Your task to perform on an android device: Check the weather Image 0: 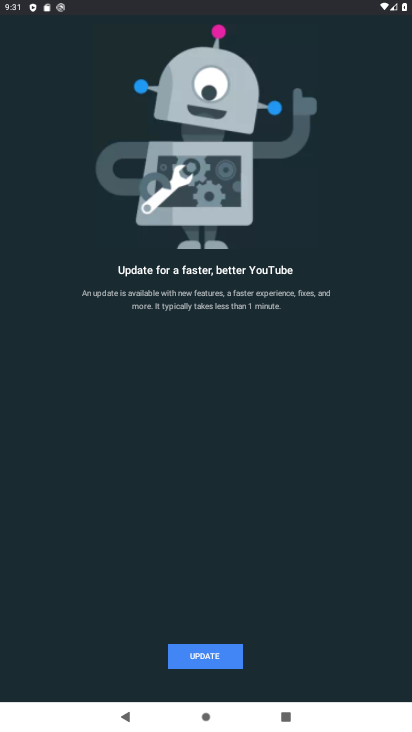
Step 0: press home button
Your task to perform on an android device: Check the weather Image 1: 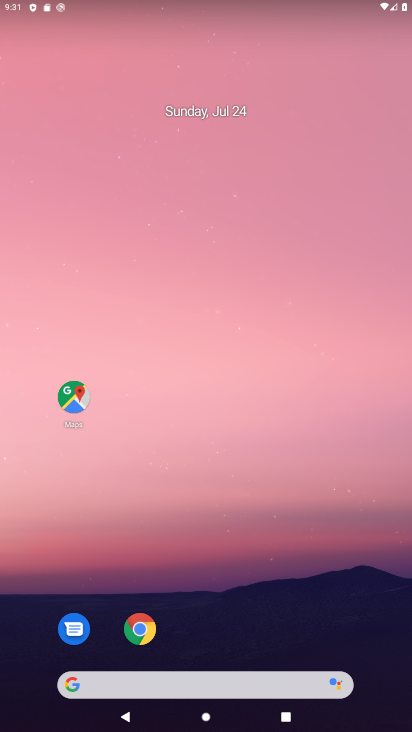
Step 1: drag from (201, 686) to (215, 190)
Your task to perform on an android device: Check the weather Image 2: 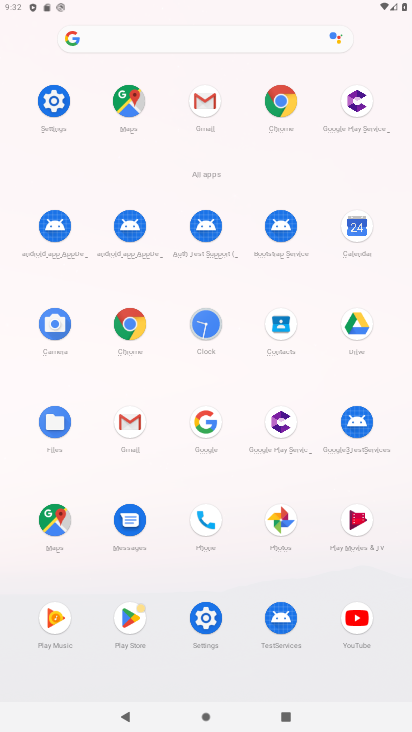
Step 2: click (282, 100)
Your task to perform on an android device: Check the weather Image 3: 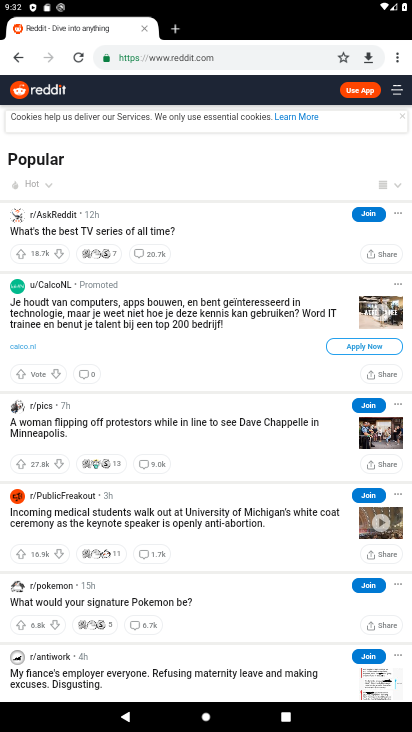
Step 3: click (281, 58)
Your task to perform on an android device: Check the weather Image 4: 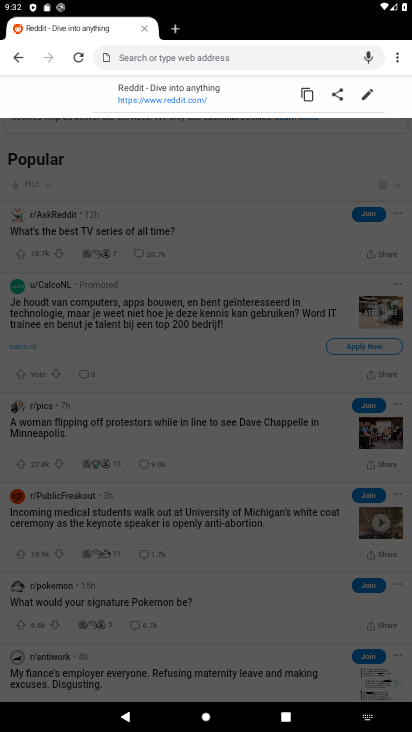
Step 4: type "weather"
Your task to perform on an android device: Check the weather Image 5: 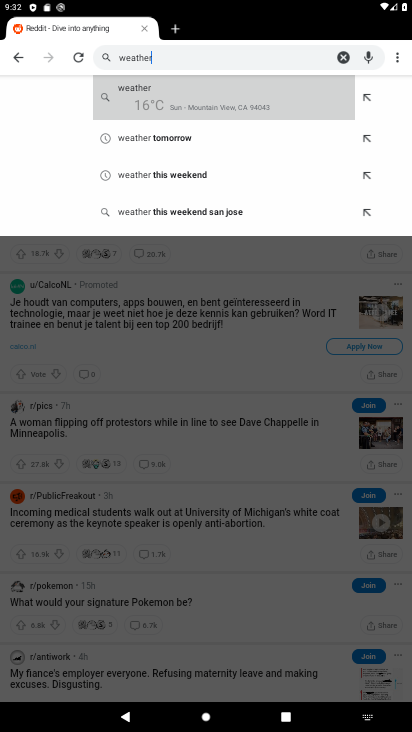
Step 5: type ""
Your task to perform on an android device: Check the weather Image 6: 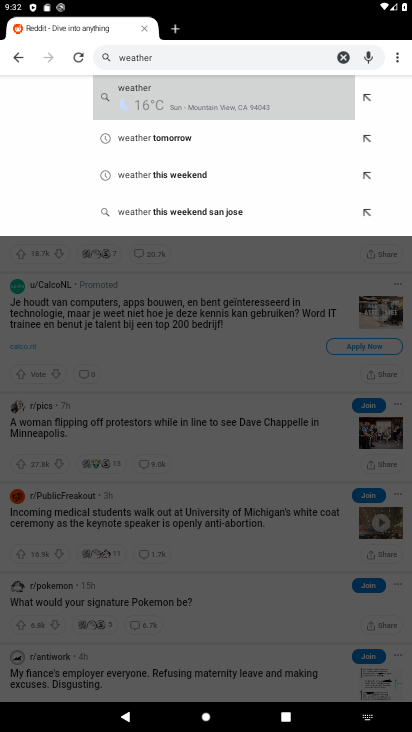
Step 6: click (163, 110)
Your task to perform on an android device: Check the weather Image 7: 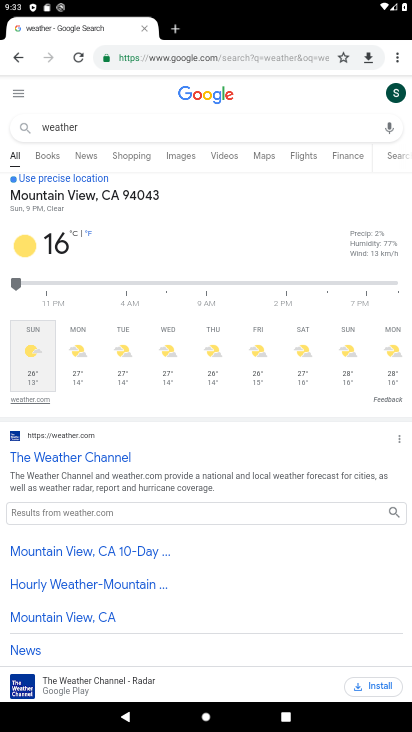
Step 7: task complete